Your task to perform on an android device: Search for Mexican restaurants on Maps Image 0: 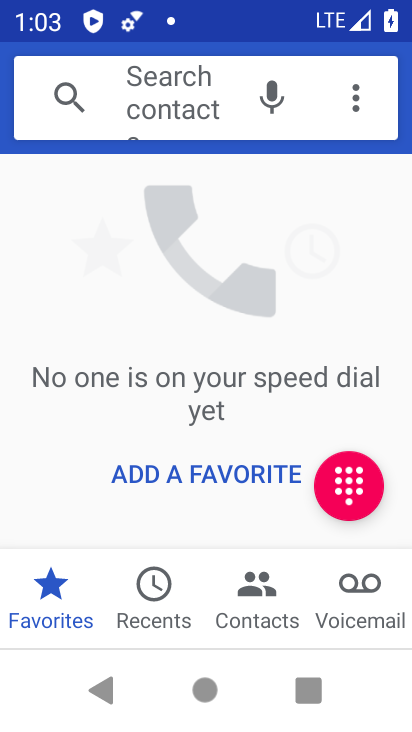
Step 0: press back button
Your task to perform on an android device: Search for Mexican restaurants on Maps Image 1: 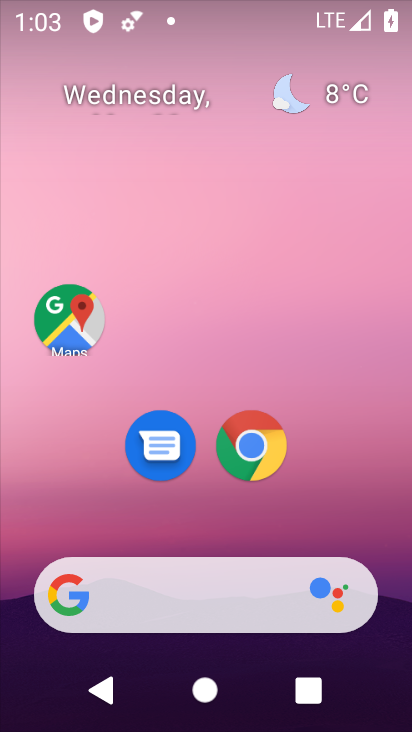
Step 1: click (67, 335)
Your task to perform on an android device: Search for Mexican restaurants on Maps Image 2: 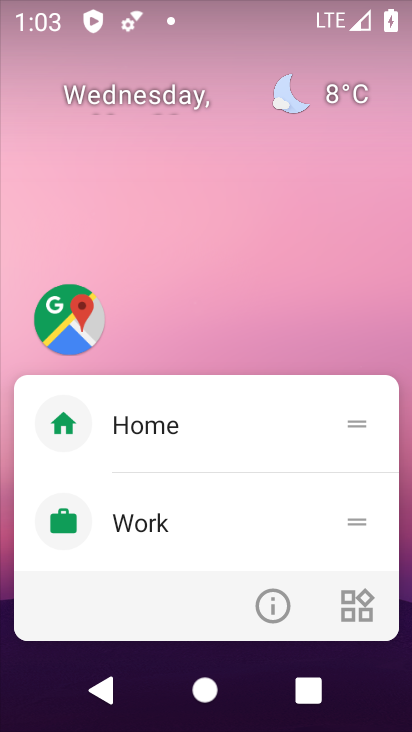
Step 2: click (69, 329)
Your task to perform on an android device: Search for Mexican restaurants on Maps Image 3: 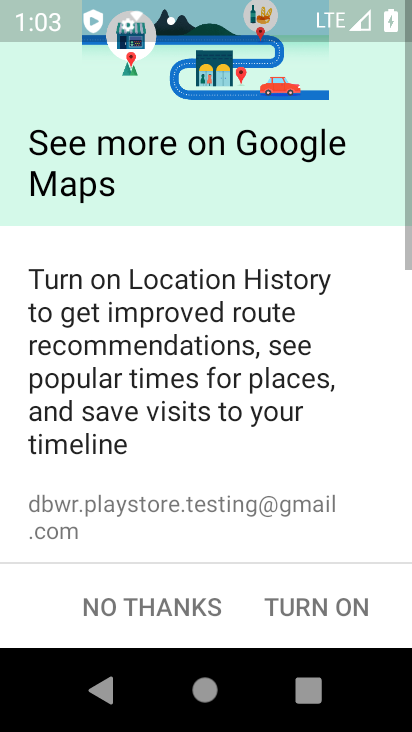
Step 3: click (187, 616)
Your task to perform on an android device: Search for Mexican restaurants on Maps Image 4: 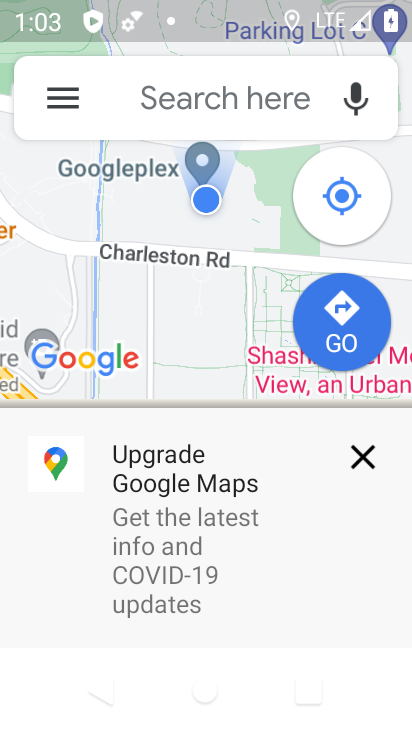
Step 4: click (370, 470)
Your task to perform on an android device: Search for Mexican restaurants on Maps Image 5: 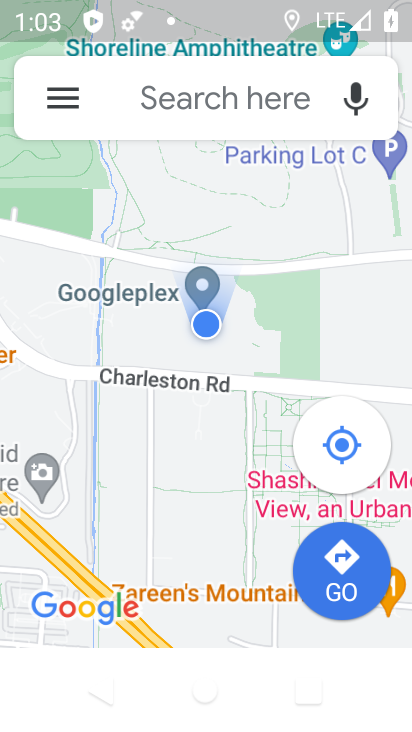
Step 5: click (197, 123)
Your task to perform on an android device: Search for Mexican restaurants on Maps Image 6: 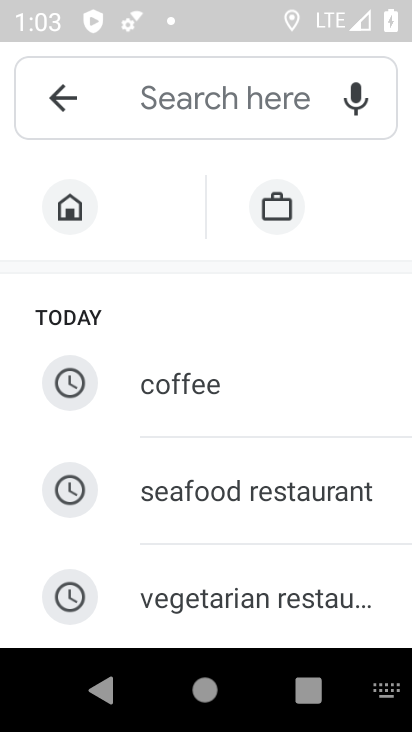
Step 6: type "Mexican restaurants"
Your task to perform on an android device: Search for Mexican restaurants on Maps Image 7: 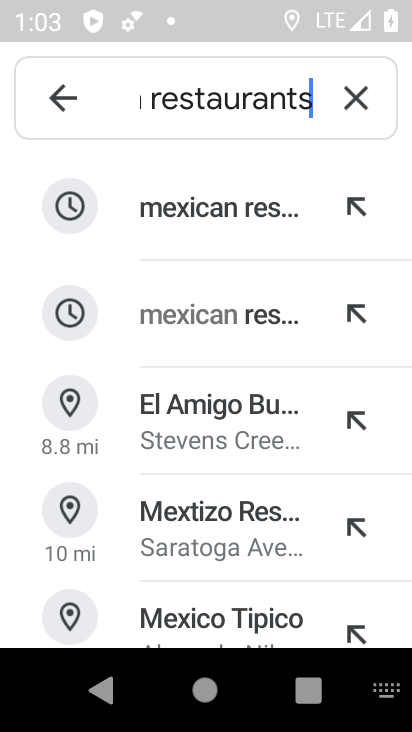
Step 7: click (245, 234)
Your task to perform on an android device: Search for Mexican restaurants on Maps Image 8: 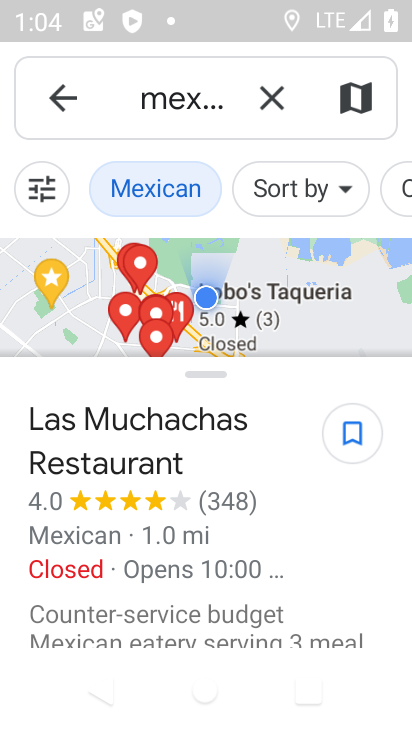
Step 8: task complete